Your task to perform on an android device: turn pop-ups on in chrome Image 0: 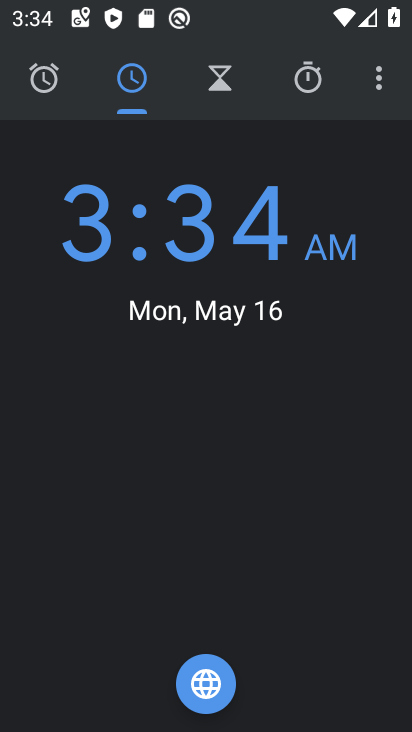
Step 0: press home button
Your task to perform on an android device: turn pop-ups on in chrome Image 1: 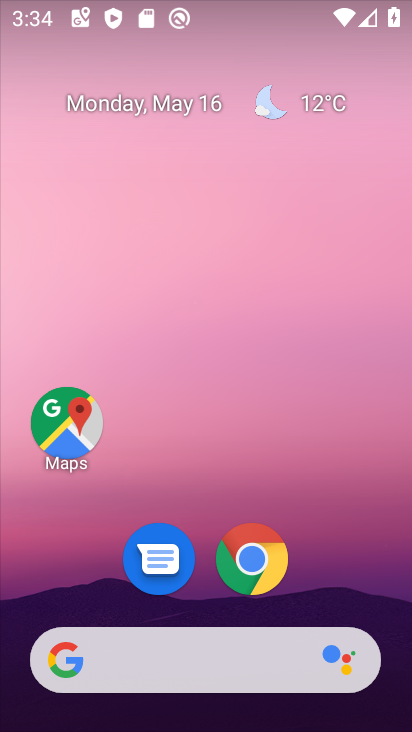
Step 1: click (255, 591)
Your task to perform on an android device: turn pop-ups on in chrome Image 2: 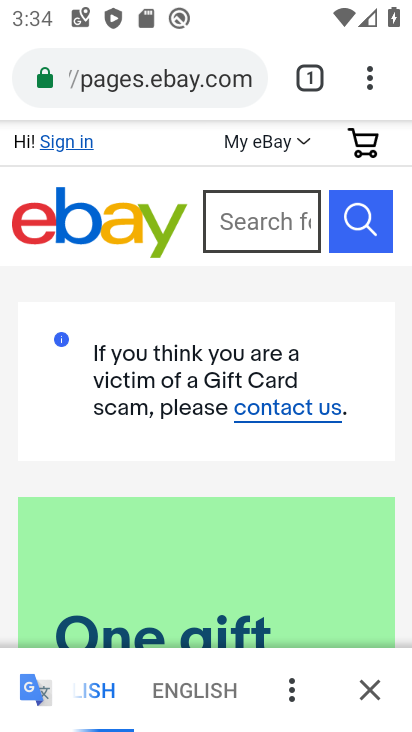
Step 2: click (370, 99)
Your task to perform on an android device: turn pop-ups on in chrome Image 3: 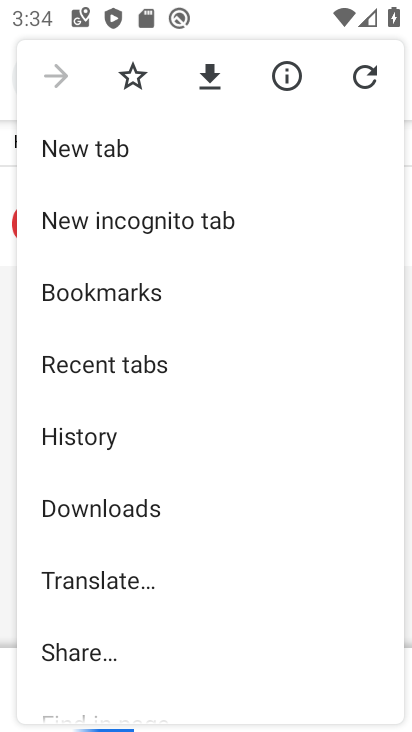
Step 3: drag from (176, 642) to (122, 324)
Your task to perform on an android device: turn pop-ups on in chrome Image 4: 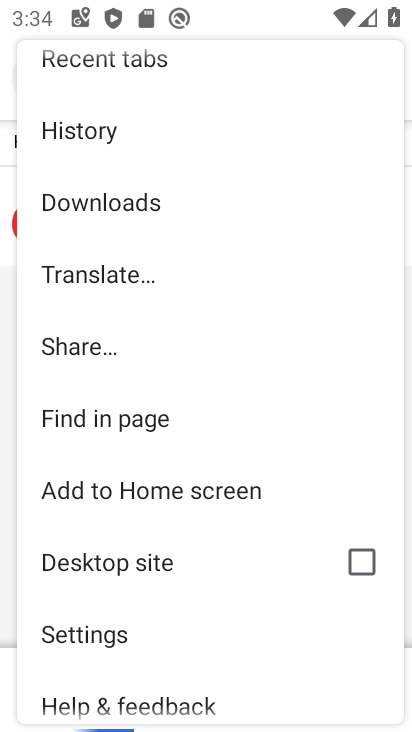
Step 4: click (145, 662)
Your task to perform on an android device: turn pop-ups on in chrome Image 5: 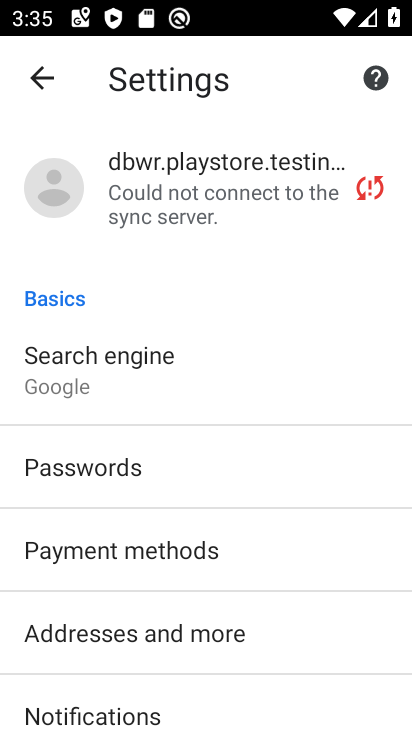
Step 5: drag from (145, 662) to (113, 335)
Your task to perform on an android device: turn pop-ups on in chrome Image 6: 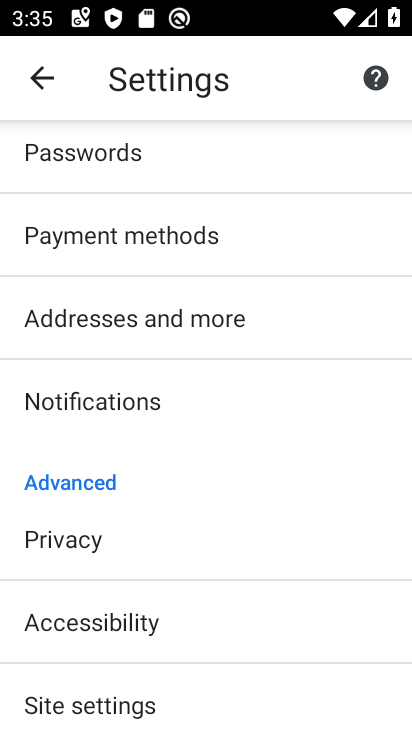
Step 6: drag from (193, 601) to (158, 349)
Your task to perform on an android device: turn pop-ups on in chrome Image 7: 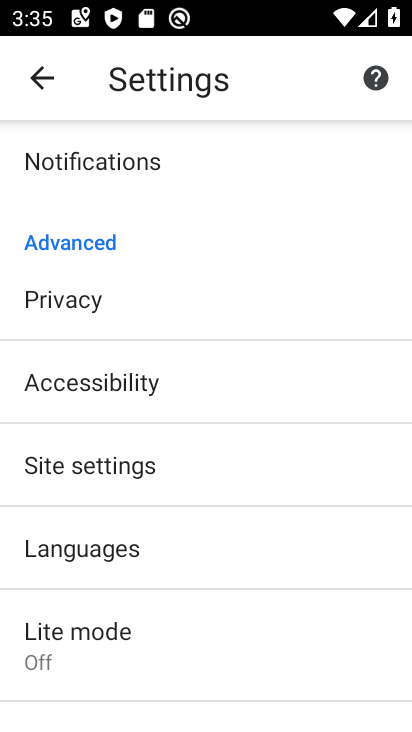
Step 7: click (149, 478)
Your task to perform on an android device: turn pop-ups on in chrome Image 8: 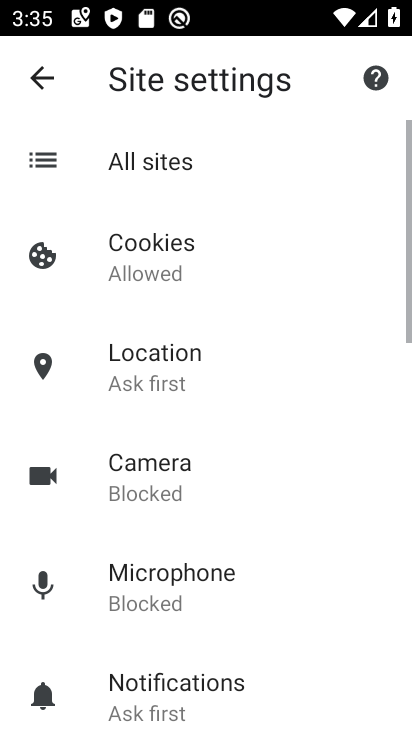
Step 8: drag from (191, 606) to (135, 188)
Your task to perform on an android device: turn pop-ups on in chrome Image 9: 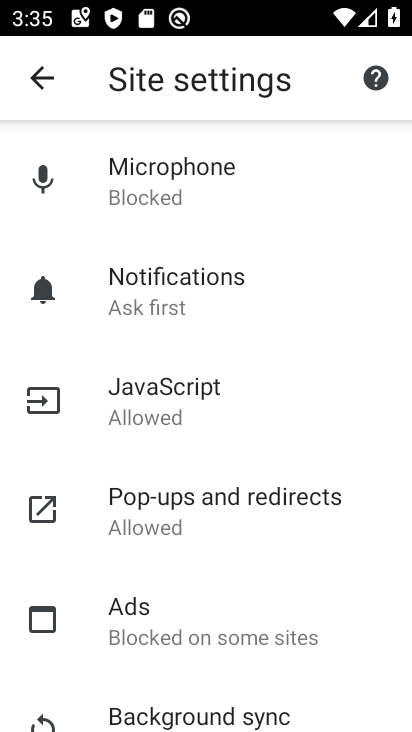
Step 9: click (210, 498)
Your task to perform on an android device: turn pop-ups on in chrome Image 10: 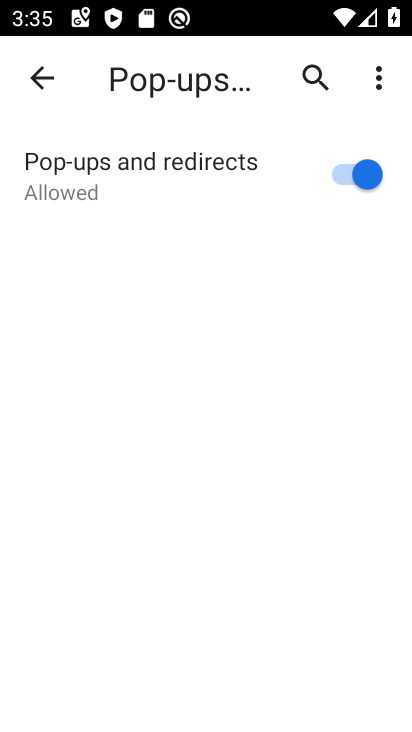
Step 10: click (331, 183)
Your task to perform on an android device: turn pop-ups on in chrome Image 11: 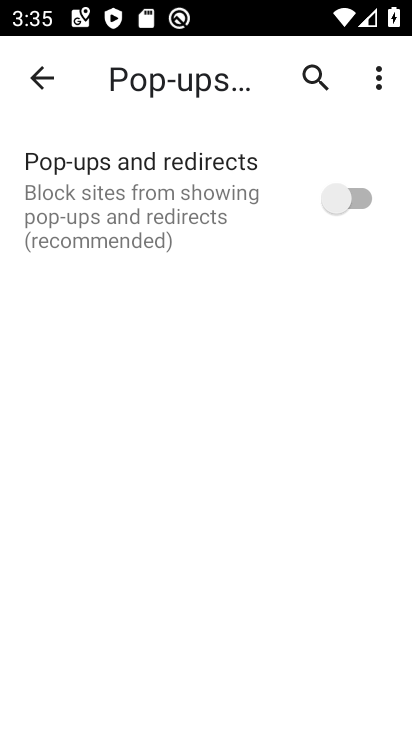
Step 11: task complete